Your task to perform on an android device: turn on location history Image 0: 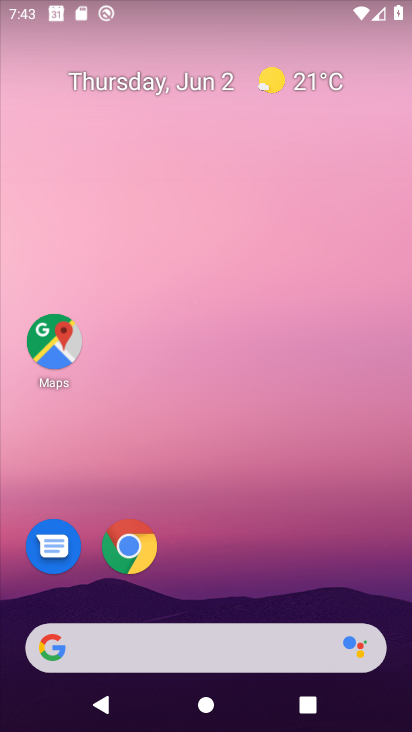
Step 0: drag from (283, 531) to (267, 190)
Your task to perform on an android device: turn on location history Image 1: 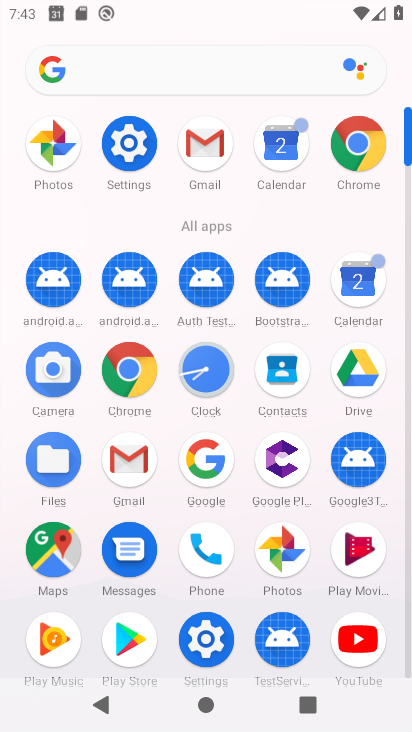
Step 1: click (129, 157)
Your task to perform on an android device: turn on location history Image 2: 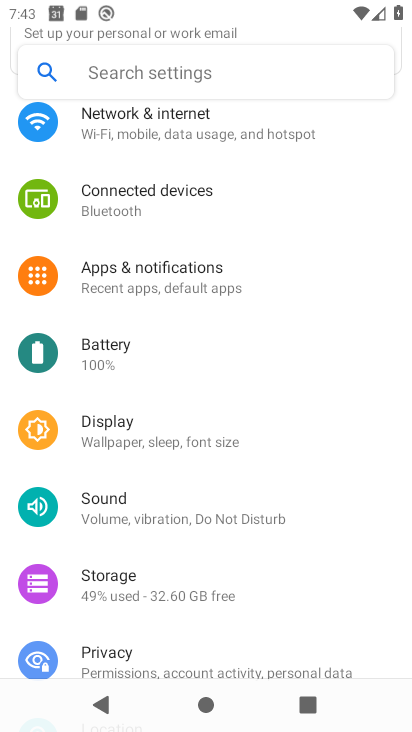
Step 2: drag from (177, 610) to (208, 362)
Your task to perform on an android device: turn on location history Image 3: 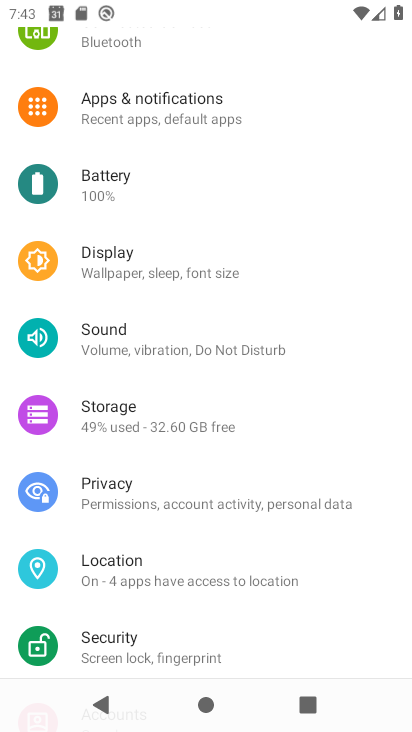
Step 3: click (147, 579)
Your task to perform on an android device: turn on location history Image 4: 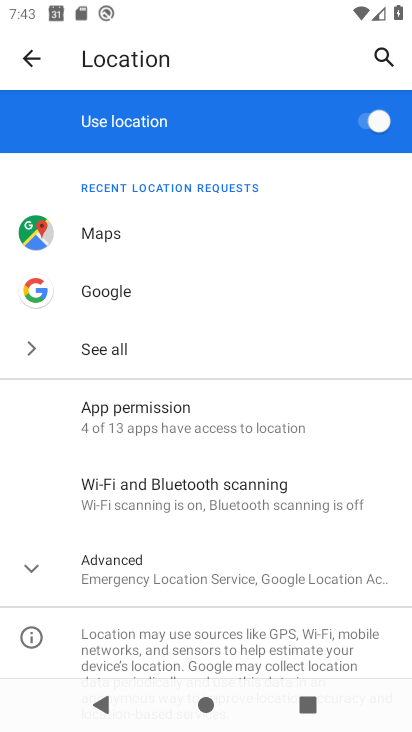
Step 4: click (145, 555)
Your task to perform on an android device: turn on location history Image 5: 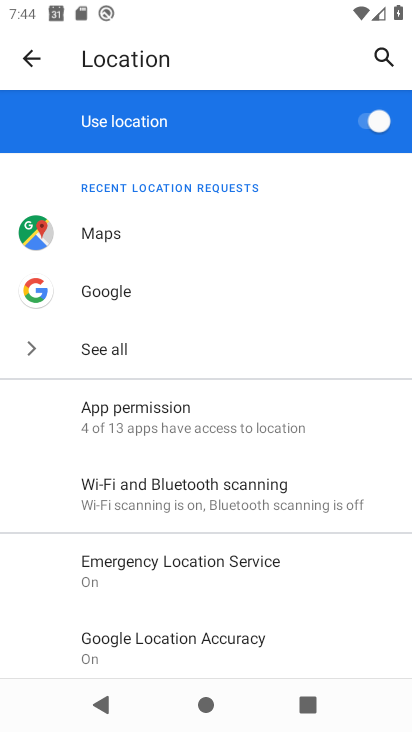
Step 5: drag from (252, 621) to (269, 367)
Your task to perform on an android device: turn on location history Image 6: 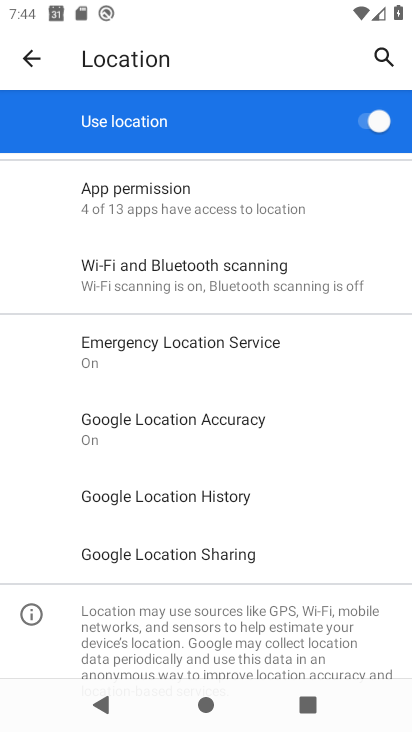
Step 6: click (180, 497)
Your task to perform on an android device: turn on location history Image 7: 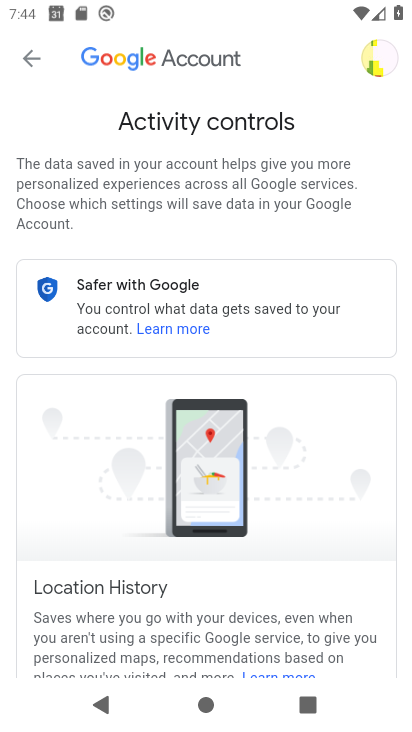
Step 7: task complete